Your task to perform on an android device: Open Android settings Image 0: 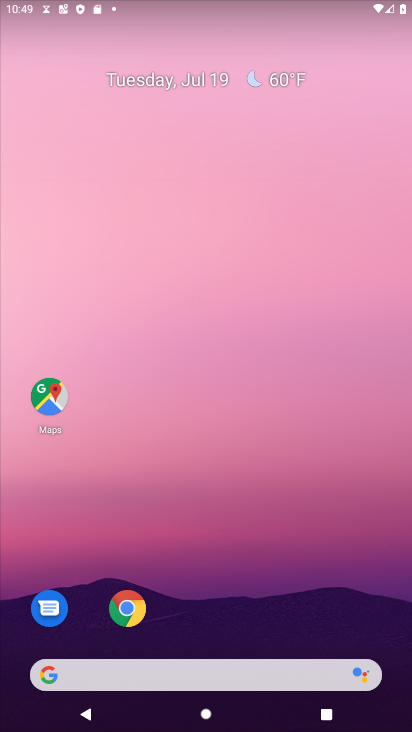
Step 0: drag from (315, 601) to (357, 103)
Your task to perform on an android device: Open Android settings Image 1: 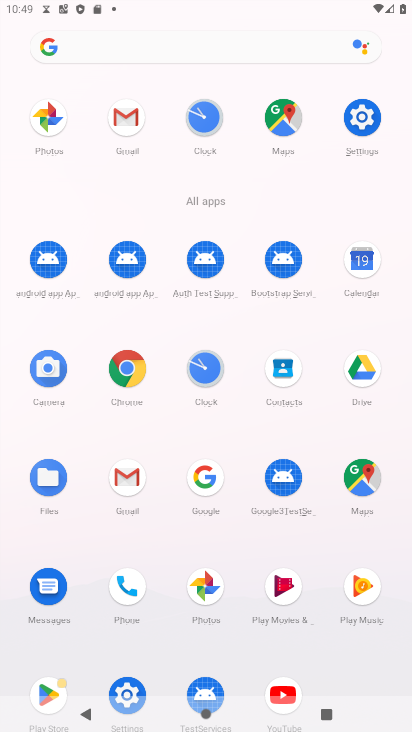
Step 1: click (363, 104)
Your task to perform on an android device: Open Android settings Image 2: 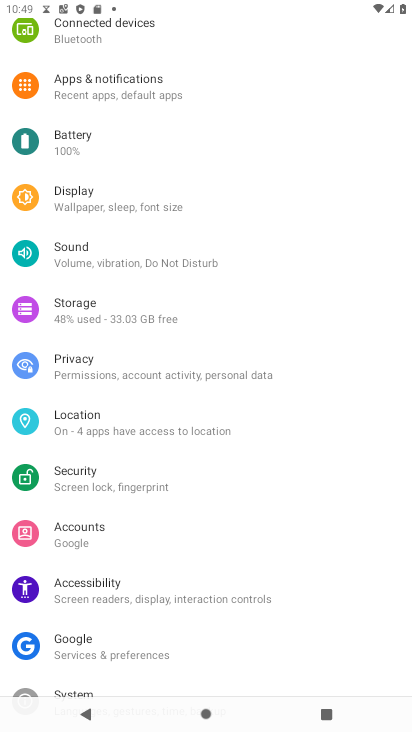
Step 2: drag from (154, 556) to (208, 124)
Your task to perform on an android device: Open Android settings Image 3: 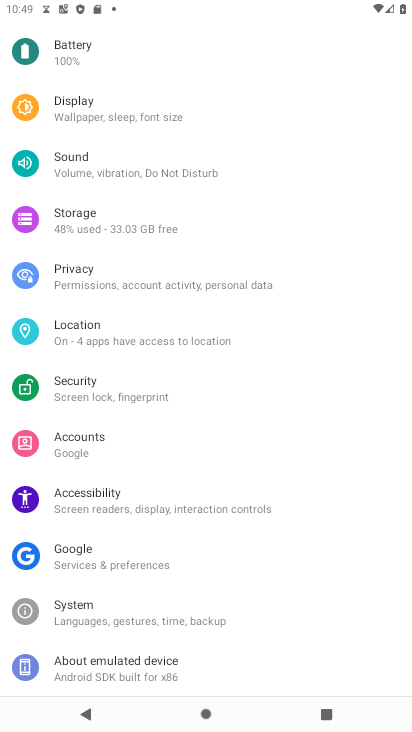
Step 3: click (115, 599)
Your task to perform on an android device: Open Android settings Image 4: 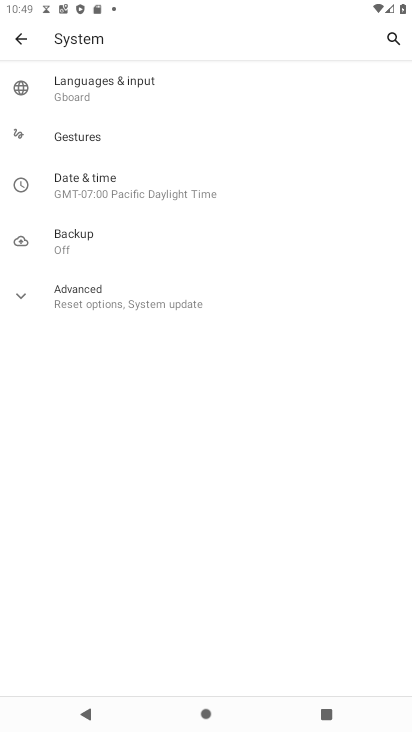
Step 4: task complete